Your task to perform on an android device: Open the stopwatch Image 0: 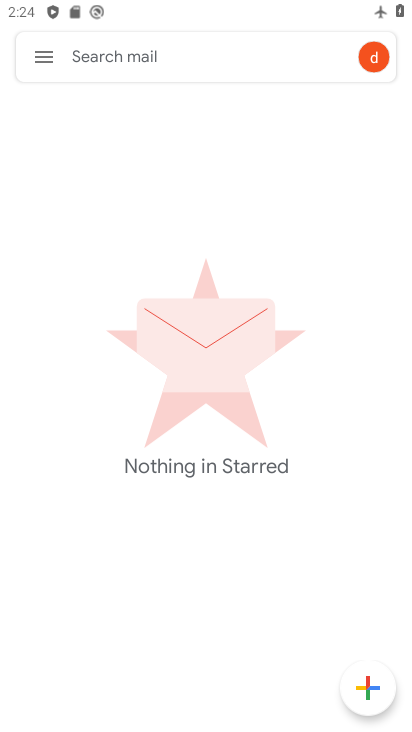
Step 0: press home button
Your task to perform on an android device: Open the stopwatch Image 1: 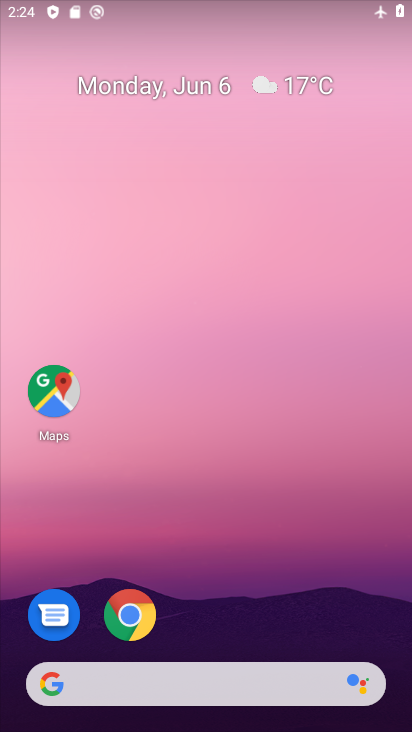
Step 1: drag from (250, 571) to (331, 10)
Your task to perform on an android device: Open the stopwatch Image 2: 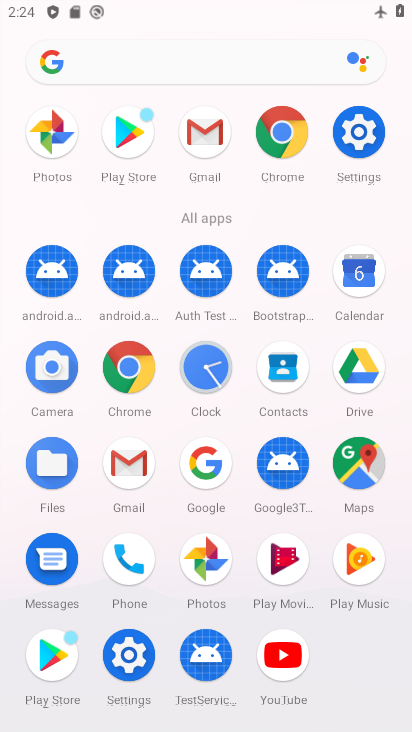
Step 2: click (200, 376)
Your task to perform on an android device: Open the stopwatch Image 3: 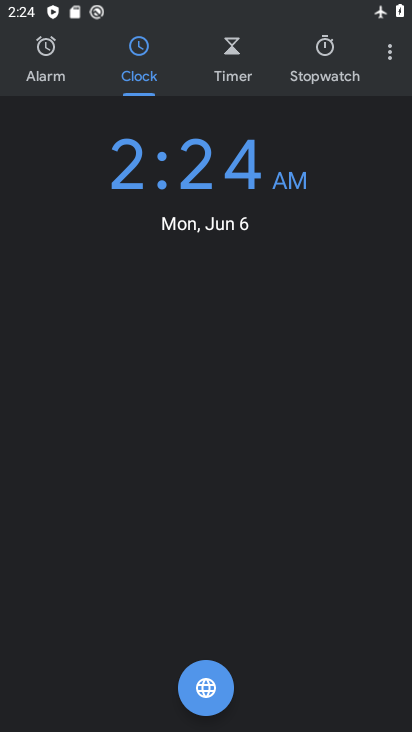
Step 3: click (335, 60)
Your task to perform on an android device: Open the stopwatch Image 4: 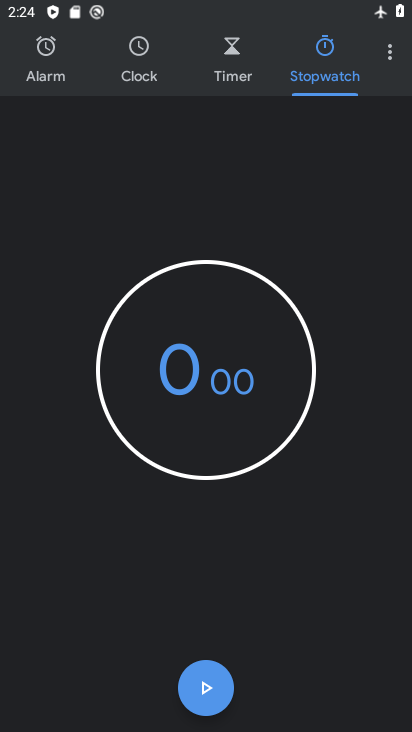
Step 4: click (206, 672)
Your task to perform on an android device: Open the stopwatch Image 5: 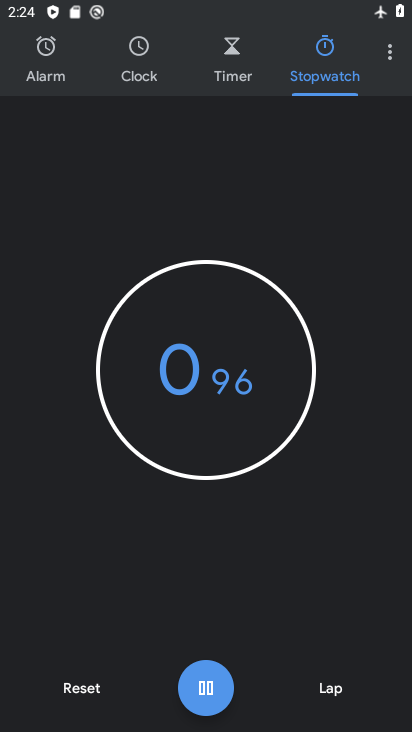
Step 5: task complete